Your task to perform on an android device: Open settings on Google Maps Image 0: 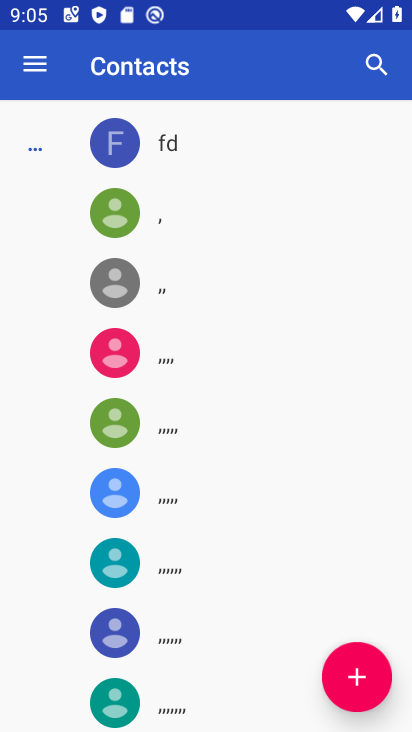
Step 0: press home button
Your task to perform on an android device: Open settings on Google Maps Image 1: 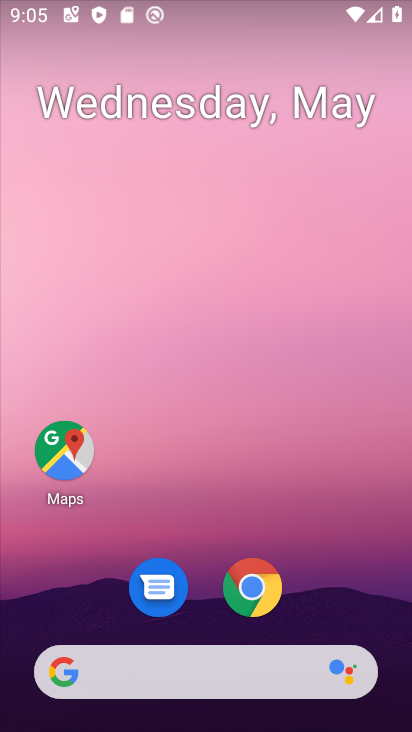
Step 1: click (61, 450)
Your task to perform on an android device: Open settings on Google Maps Image 2: 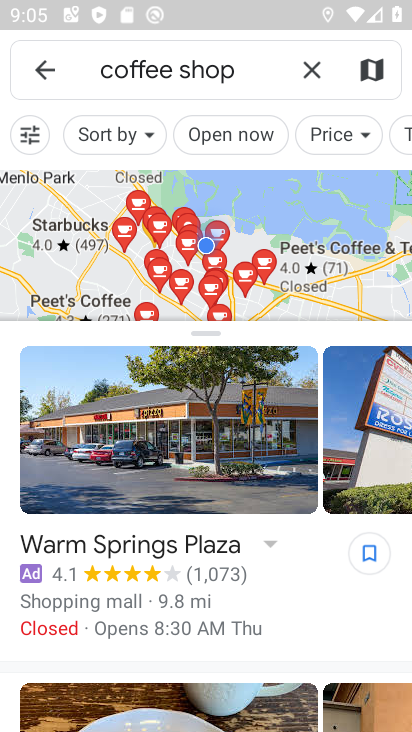
Step 2: click (314, 71)
Your task to perform on an android device: Open settings on Google Maps Image 3: 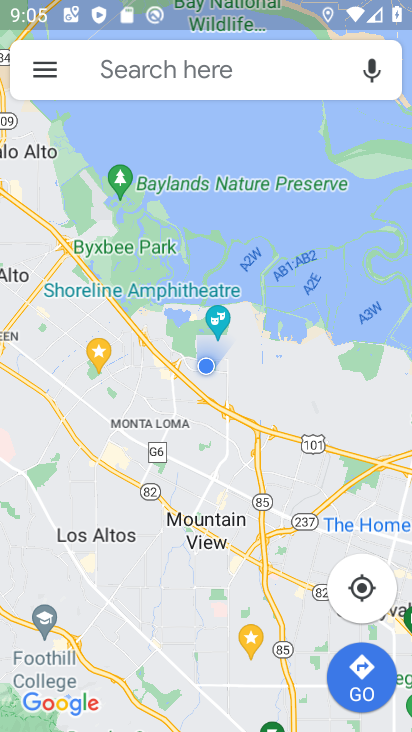
Step 3: click (37, 65)
Your task to perform on an android device: Open settings on Google Maps Image 4: 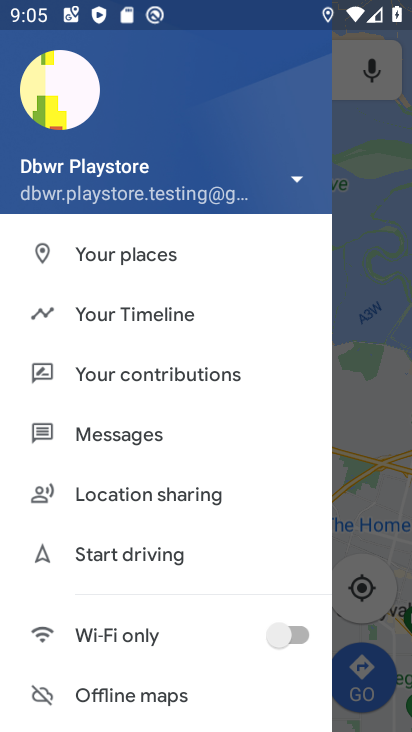
Step 4: drag from (258, 633) to (226, 183)
Your task to perform on an android device: Open settings on Google Maps Image 5: 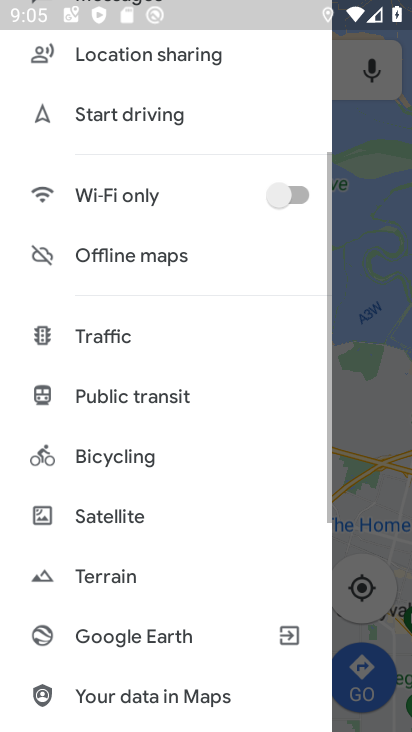
Step 5: drag from (237, 698) to (238, 185)
Your task to perform on an android device: Open settings on Google Maps Image 6: 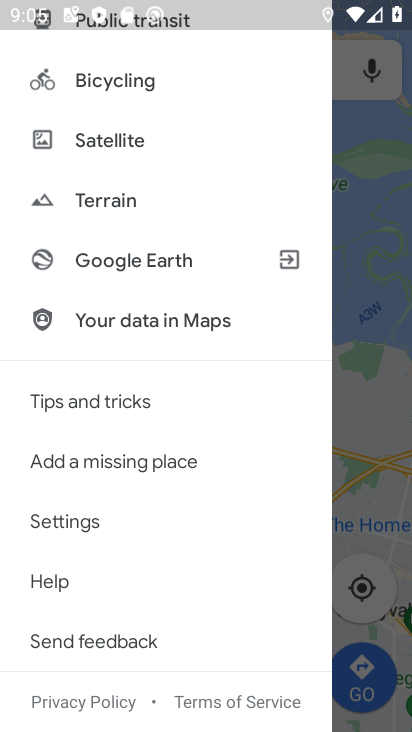
Step 6: click (64, 514)
Your task to perform on an android device: Open settings on Google Maps Image 7: 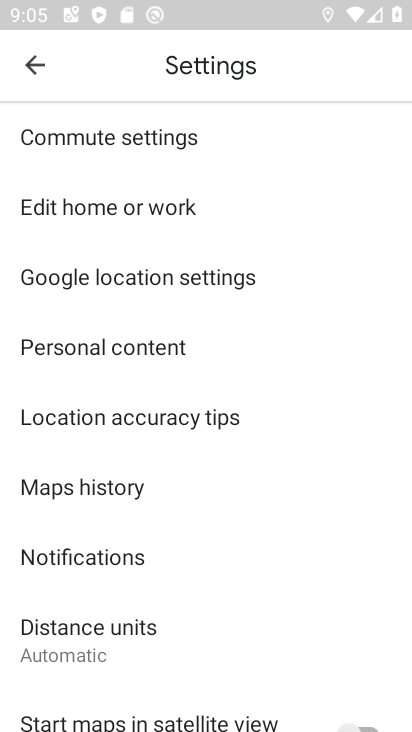
Step 7: task complete